Your task to perform on an android device: Open maps Image 0: 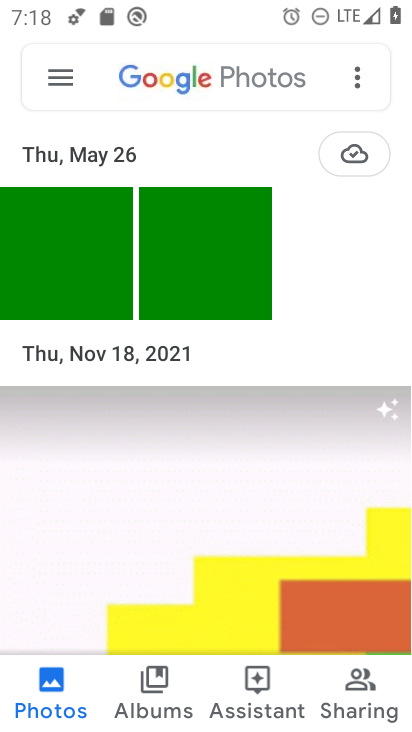
Step 0: press home button
Your task to perform on an android device: Open maps Image 1: 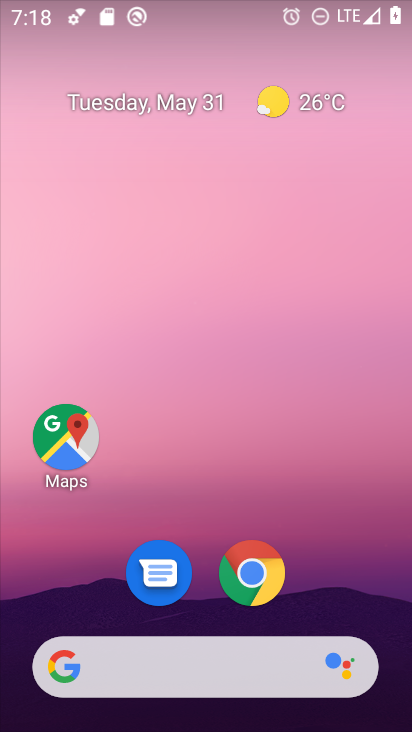
Step 1: drag from (402, 639) to (280, 68)
Your task to perform on an android device: Open maps Image 2: 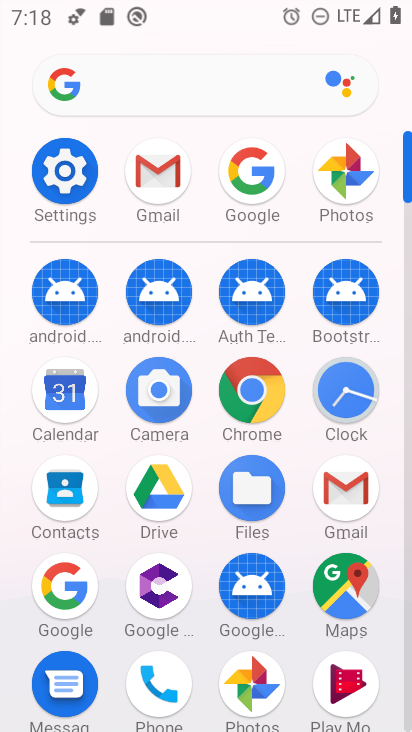
Step 2: click (334, 584)
Your task to perform on an android device: Open maps Image 3: 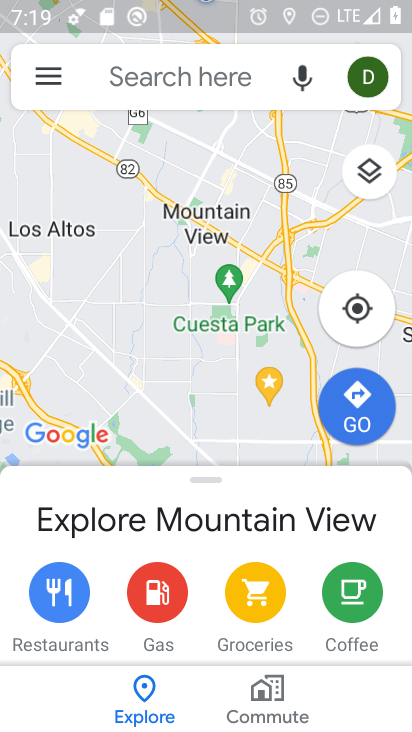
Step 3: task complete